Your task to perform on an android device: Go to Wikipedia Image 0: 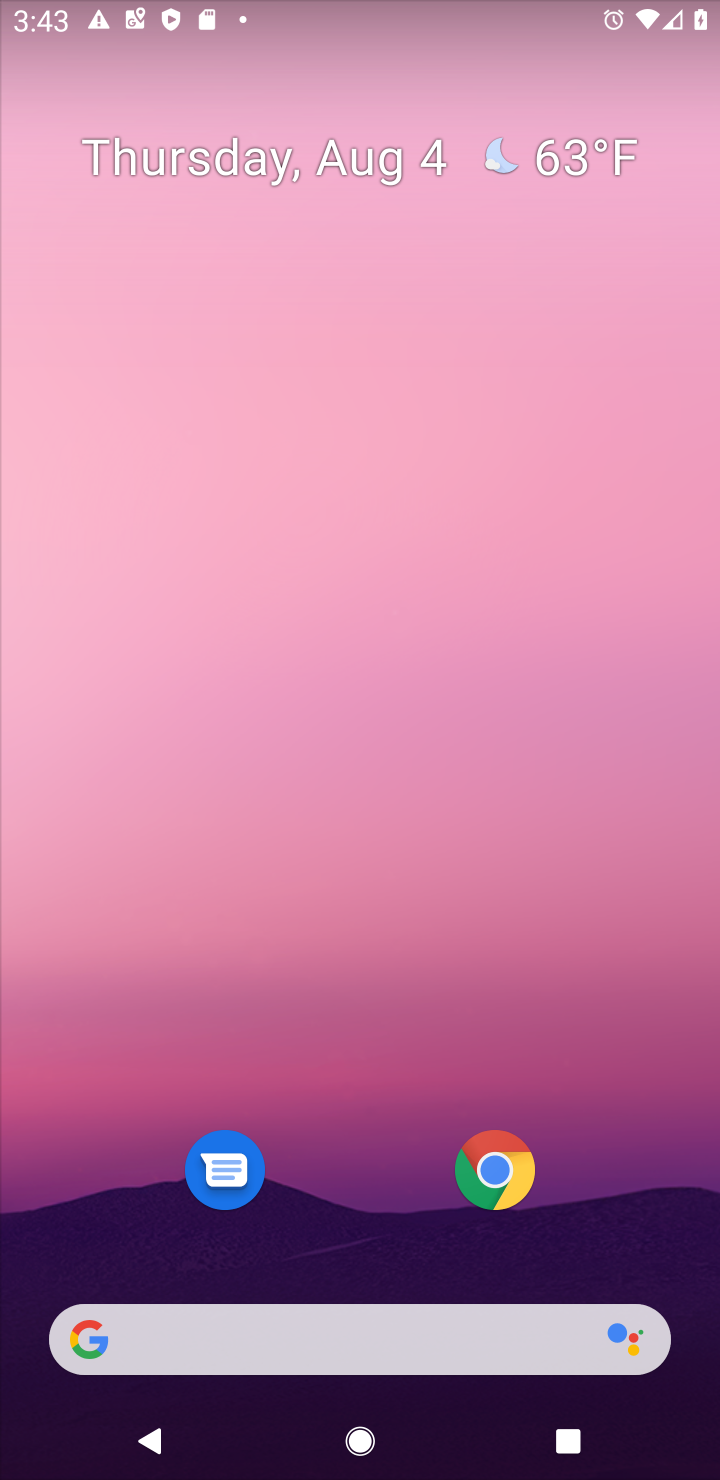
Step 0: click (494, 1175)
Your task to perform on an android device: Go to Wikipedia Image 1: 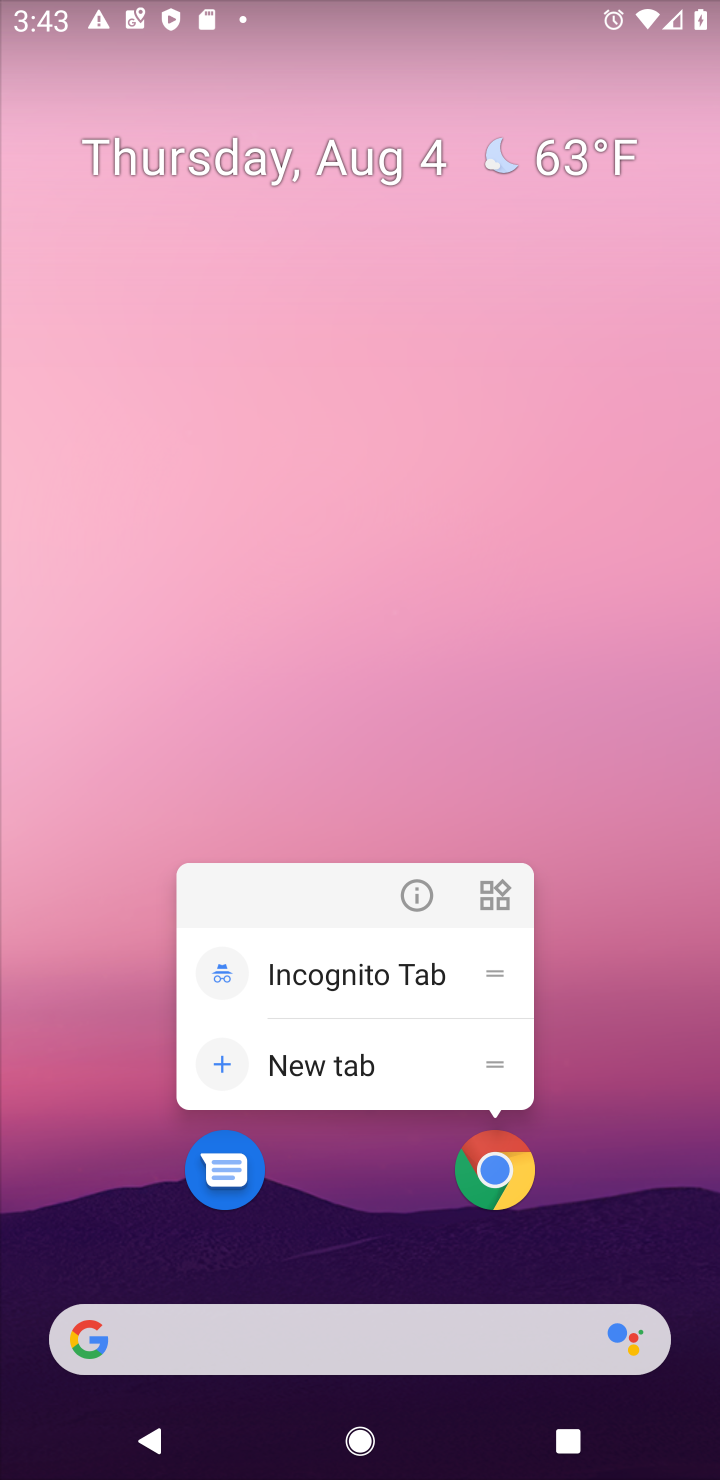
Step 1: click (492, 1167)
Your task to perform on an android device: Go to Wikipedia Image 2: 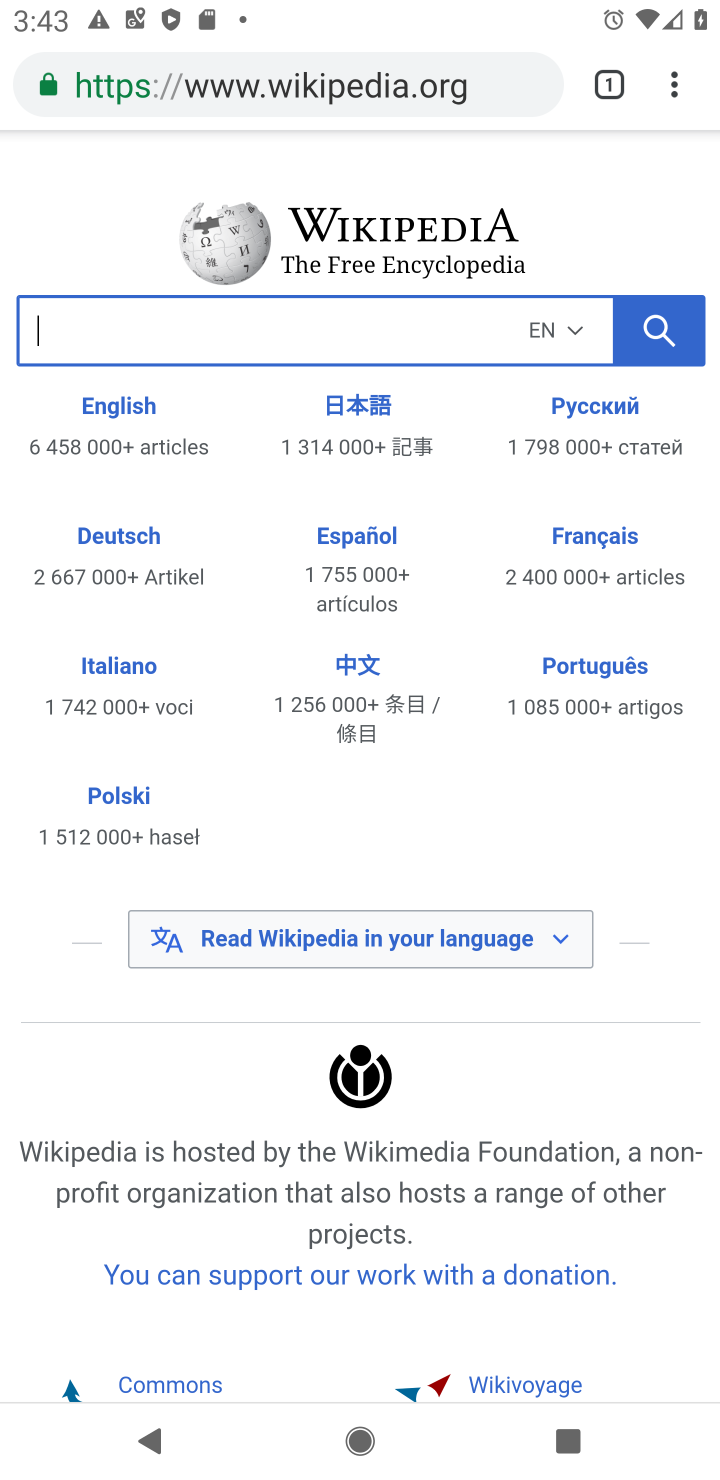
Step 2: task complete